Your task to perform on an android device: turn off smart reply in the gmail app Image 0: 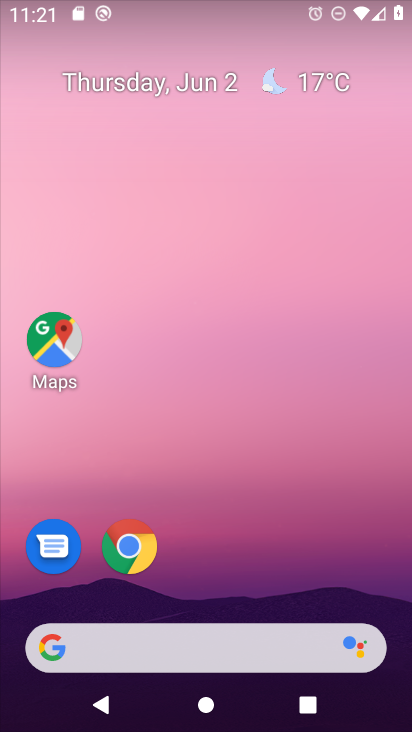
Step 0: drag from (315, 563) to (188, 62)
Your task to perform on an android device: turn off smart reply in the gmail app Image 1: 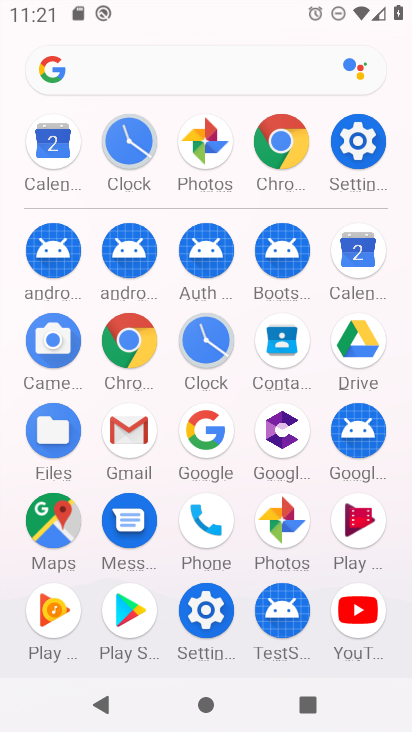
Step 1: click (124, 428)
Your task to perform on an android device: turn off smart reply in the gmail app Image 2: 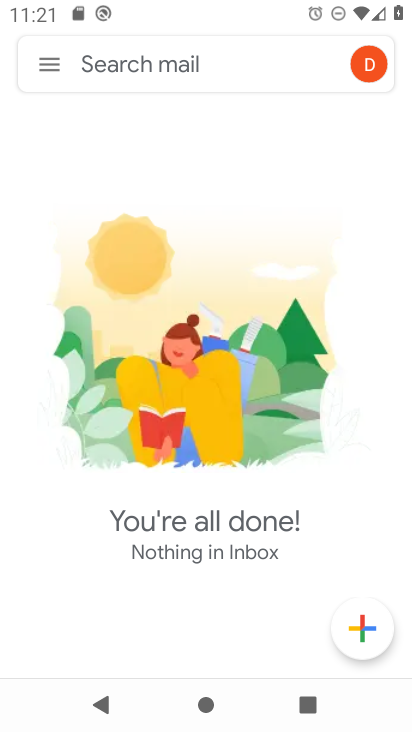
Step 2: click (57, 60)
Your task to perform on an android device: turn off smart reply in the gmail app Image 3: 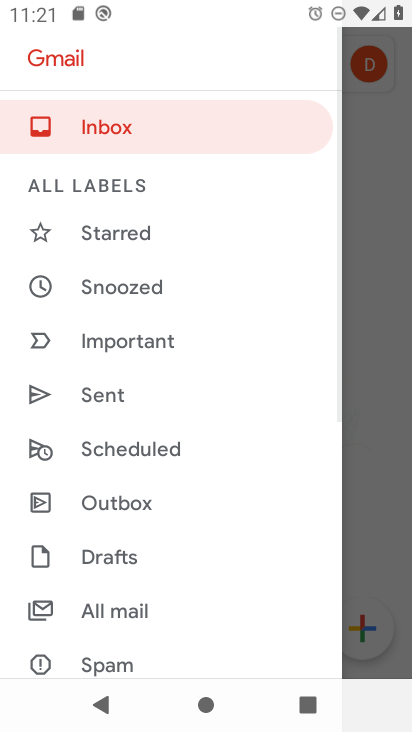
Step 3: drag from (185, 584) to (221, 129)
Your task to perform on an android device: turn off smart reply in the gmail app Image 4: 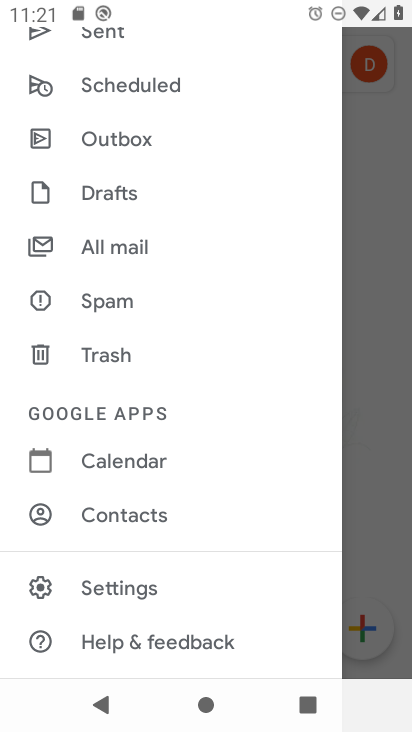
Step 4: click (137, 585)
Your task to perform on an android device: turn off smart reply in the gmail app Image 5: 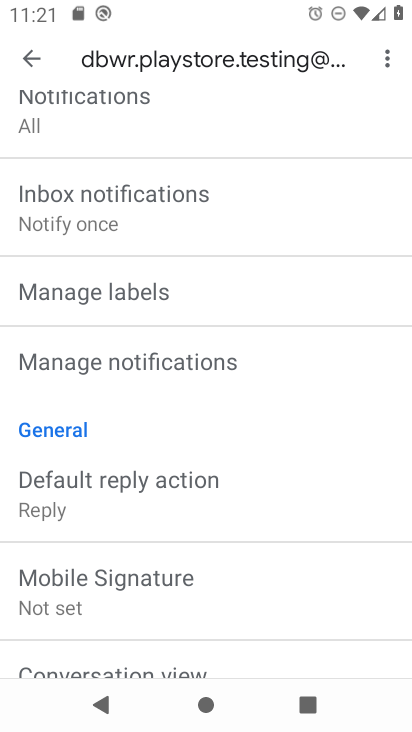
Step 5: drag from (209, 539) to (244, 190)
Your task to perform on an android device: turn off smart reply in the gmail app Image 6: 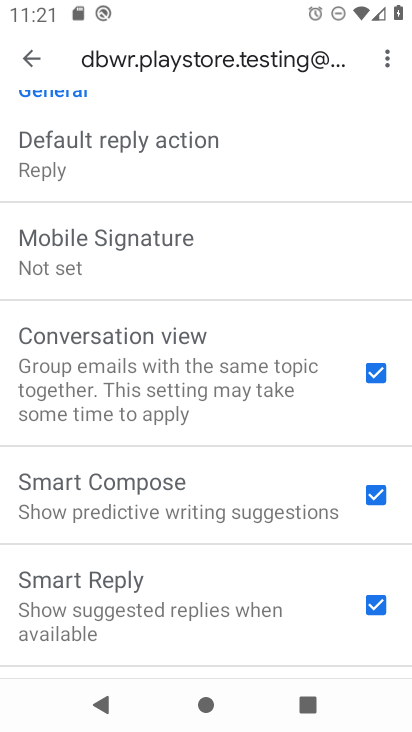
Step 6: click (370, 603)
Your task to perform on an android device: turn off smart reply in the gmail app Image 7: 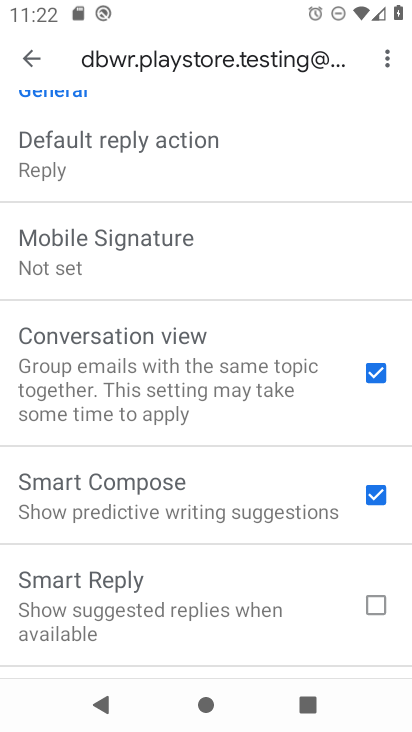
Step 7: task complete